Your task to perform on an android device: Go to internet settings Image 0: 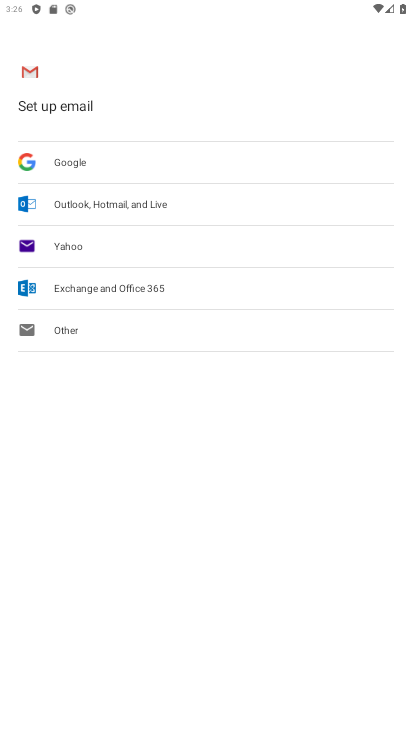
Step 0: press back button
Your task to perform on an android device: Go to internet settings Image 1: 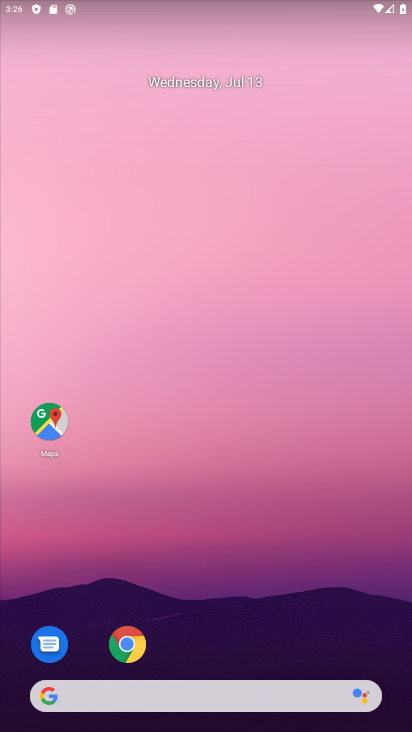
Step 1: drag from (194, 631) to (246, 8)
Your task to perform on an android device: Go to internet settings Image 2: 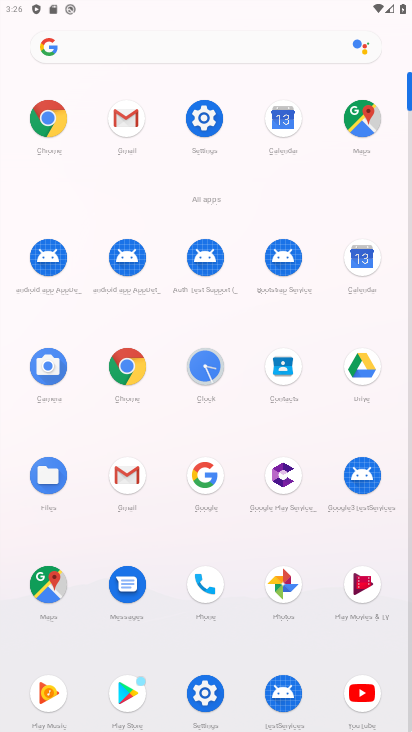
Step 2: click (212, 109)
Your task to perform on an android device: Go to internet settings Image 3: 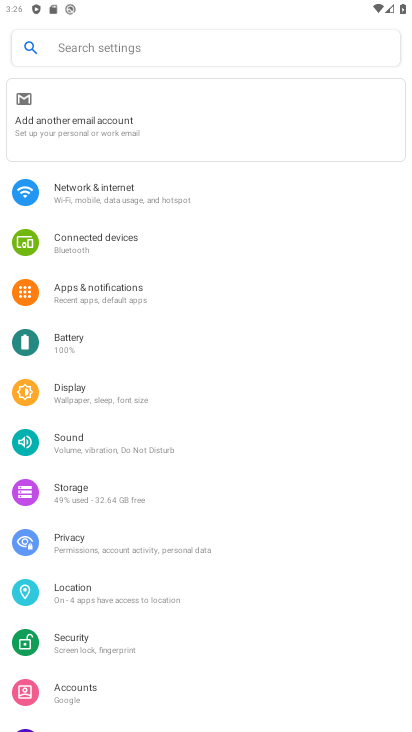
Step 3: click (113, 185)
Your task to perform on an android device: Go to internet settings Image 4: 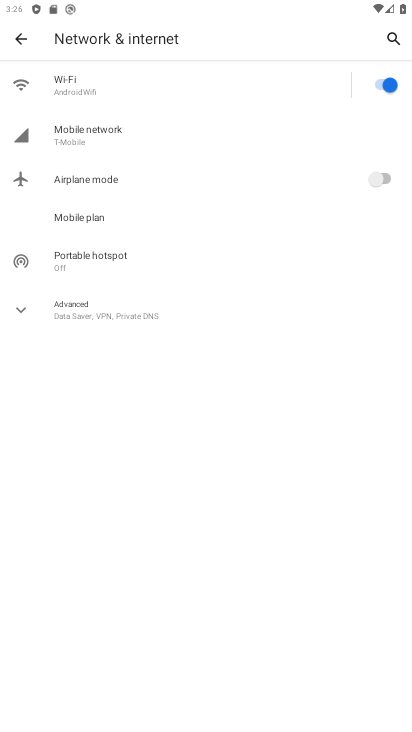
Step 4: task complete